Your task to perform on an android device: change the upload size in google photos Image 0: 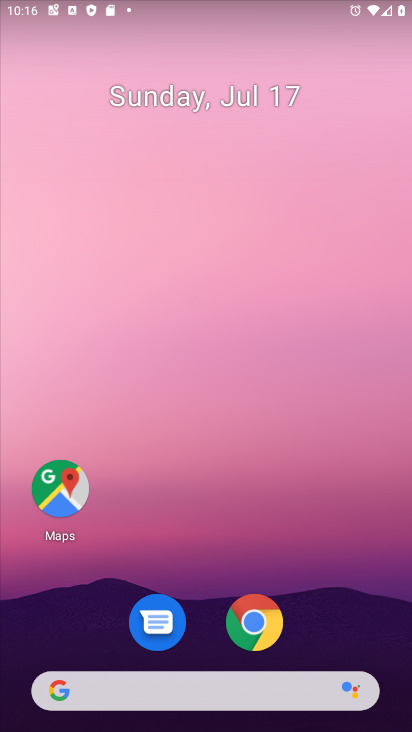
Step 0: drag from (189, 724) to (270, 5)
Your task to perform on an android device: change the upload size in google photos Image 1: 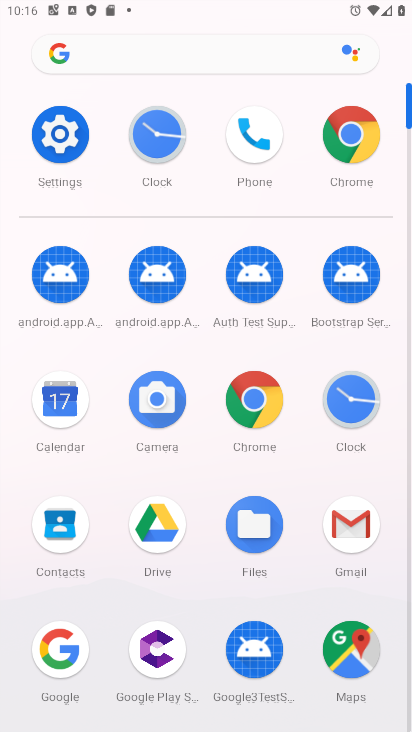
Step 1: drag from (243, 455) to (210, 20)
Your task to perform on an android device: change the upload size in google photos Image 2: 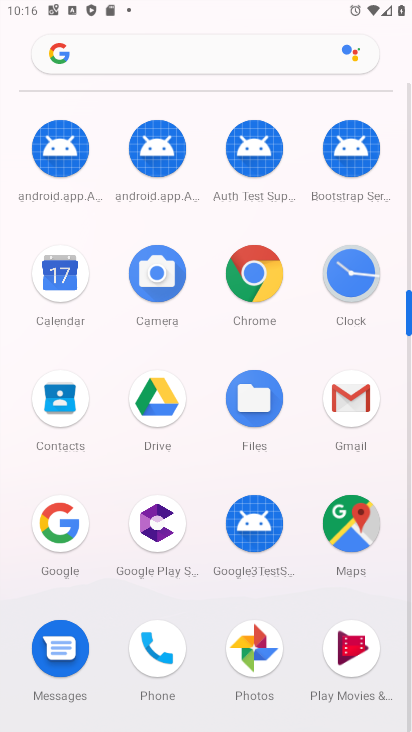
Step 2: drag from (228, 603) to (212, 135)
Your task to perform on an android device: change the upload size in google photos Image 3: 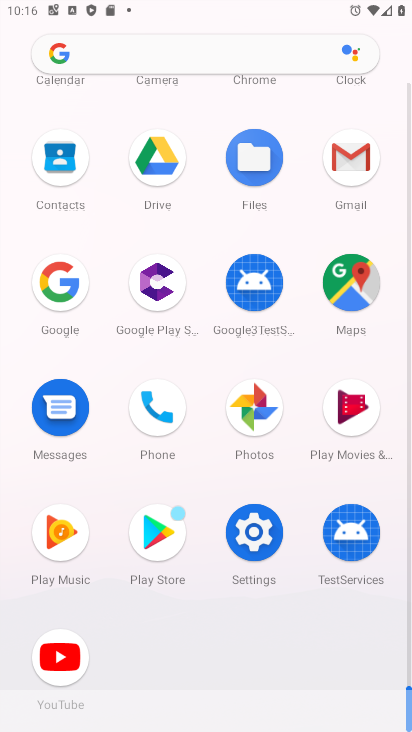
Step 3: click (261, 413)
Your task to perform on an android device: change the upload size in google photos Image 4: 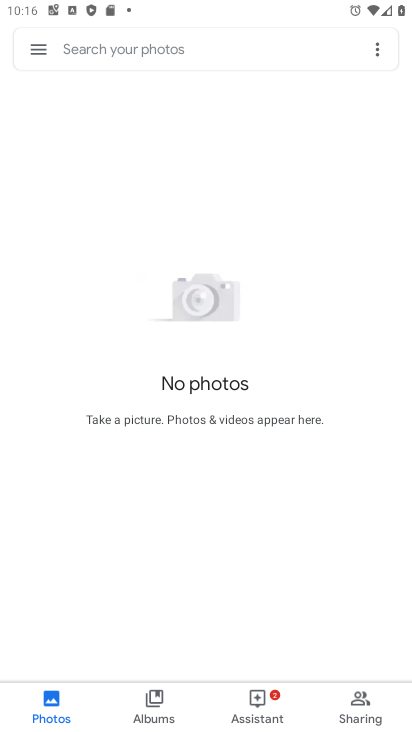
Step 4: click (42, 45)
Your task to perform on an android device: change the upload size in google photos Image 5: 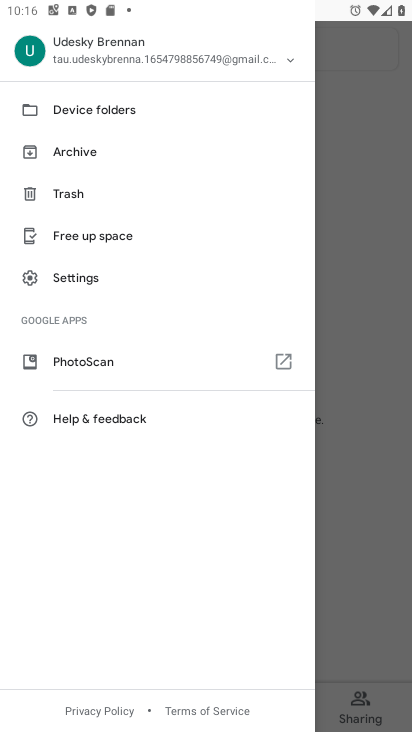
Step 5: click (119, 276)
Your task to perform on an android device: change the upload size in google photos Image 6: 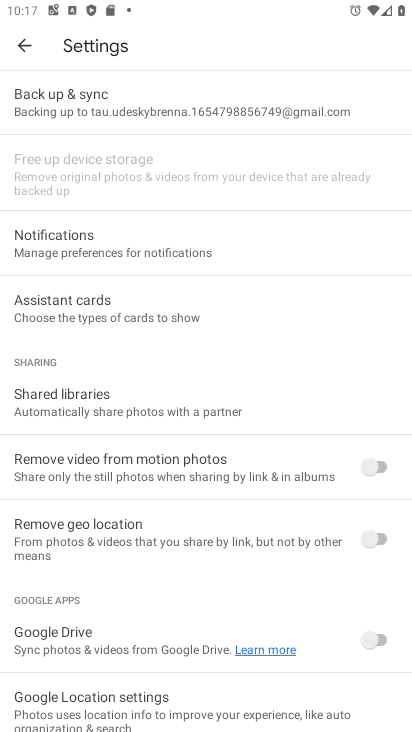
Step 6: click (219, 109)
Your task to perform on an android device: change the upload size in google photos Image 7: 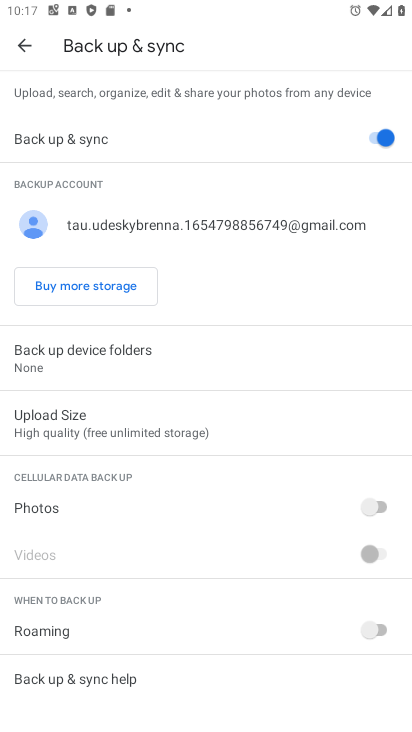
Step 7: click (244, 435)
Your task to perform on an android device: change the upload size in google photos Image 8: 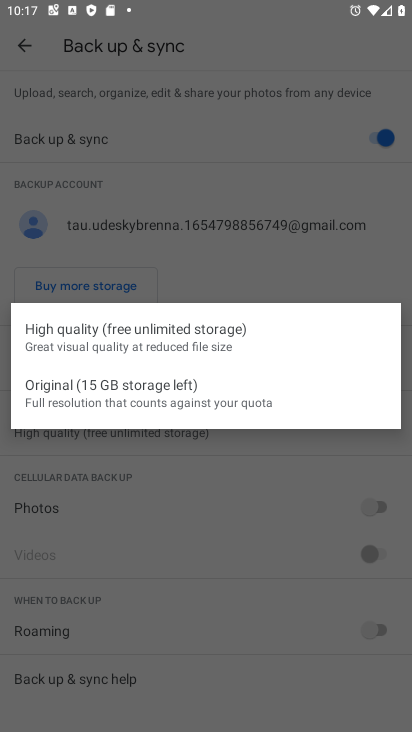
Step 8: click (194, 405)
Your task to perform on an android device: change the upload size in google photos Image 9: 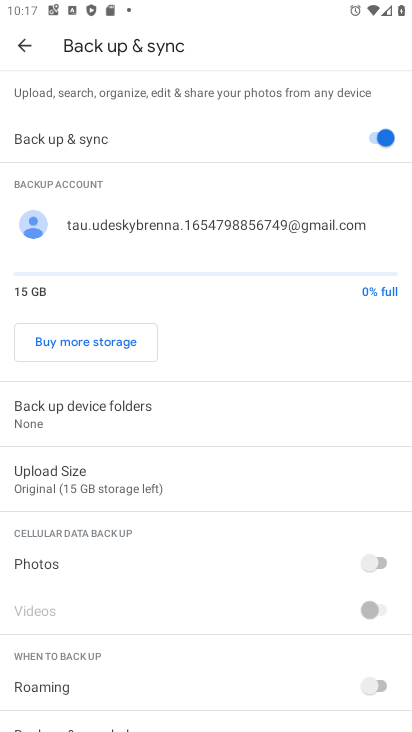
Step 9: task complete